Your task to perform on an android device: change your default location settings in chrome Image 0: 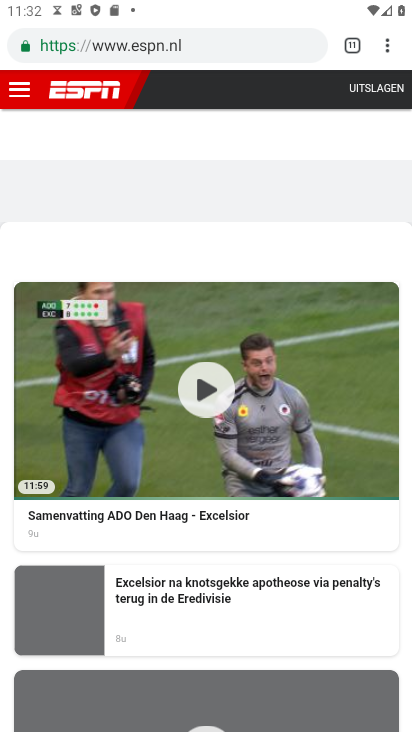
Step 0: press home button
Your task to perform on an android device: change your default location settings in chrome Image 1: 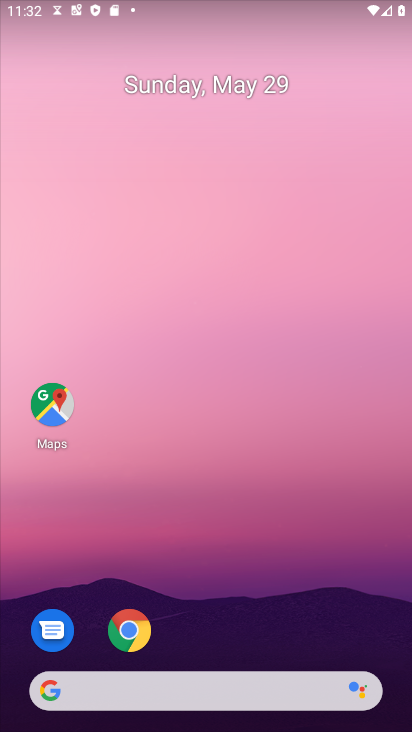
Step 1: drag from (147, 573) to (194, 143)
Your task to perform on an android device: change your default location settings in chrome Image 2: 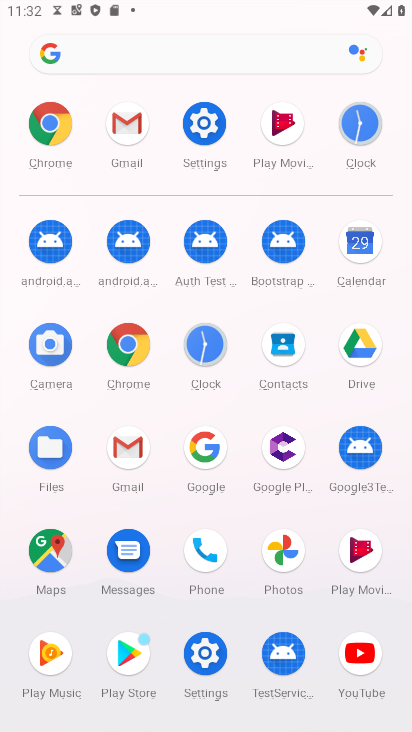
Step 2: click (50, 131)
Your task to perform on an android device: change your default location settings in chrome Image 3: 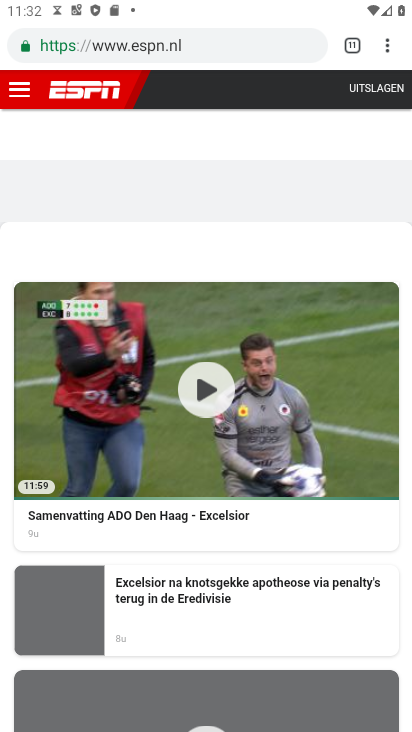
Step 3: click (391, 45)
Your task to perform on an android device: change your default location settings in chrome Image 4: 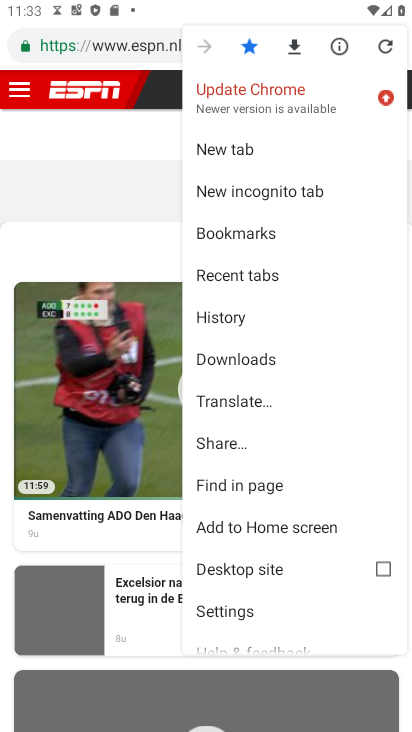
Step 4: click (228, 602)
Your task to perform on an android device: change your default location settings in chrome Image 5: 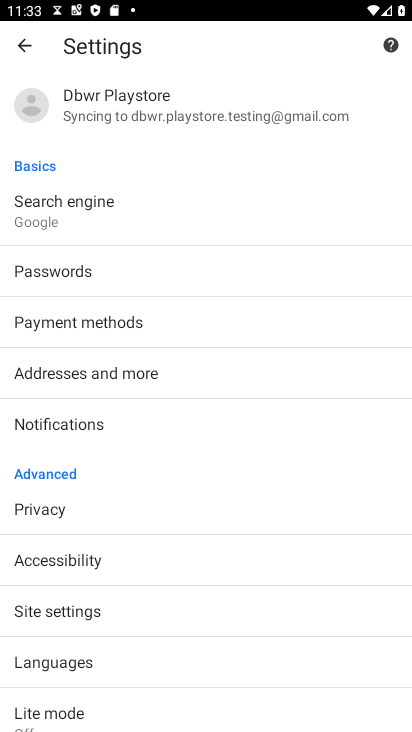
Step 5: drag from (143, 587) to (185, 216)
Your task to perform on an android device: change your default location settings in chrome Image 6: 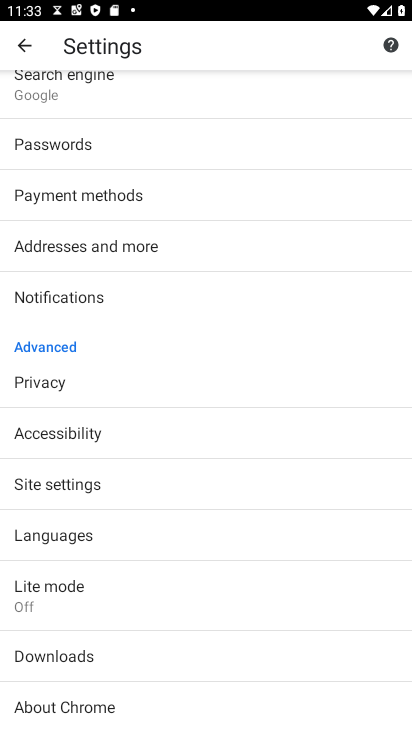
Step 6: click (123, 472)
Your task to perform on an android device: change your default location settings in chrome Image 7: 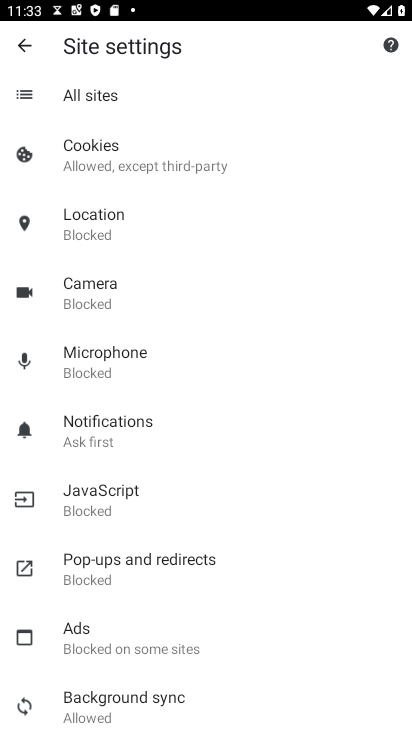
Step 7: click (141, 199)
Your task to perform on an android device: change your default location settings in chrome Image 8: 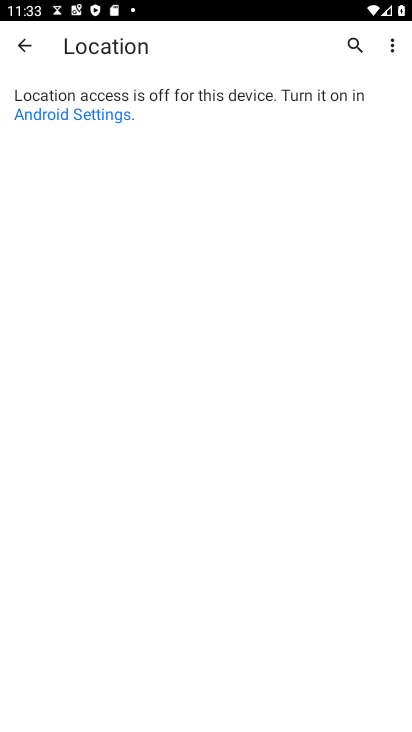
Step 8: click (119, 110)
Your task to perform on an android device: change your default location settings in chrome Image 9: 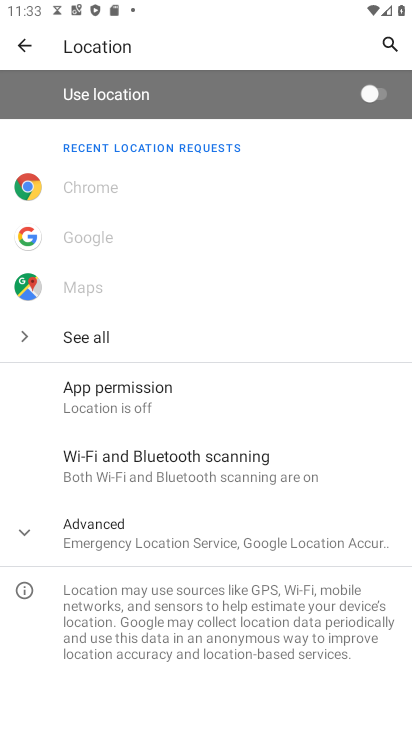
Step 9: task complete